Your task to perform on an android device: toggle location history Image 0: 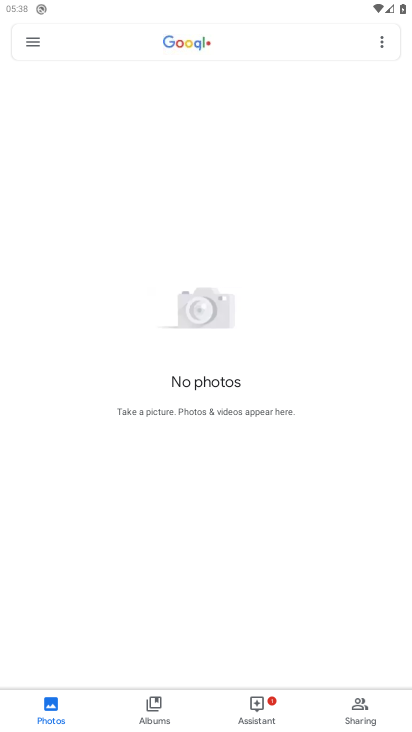
Step 0: press home button
Your task to perform on an android device: toggle location history Image 1: 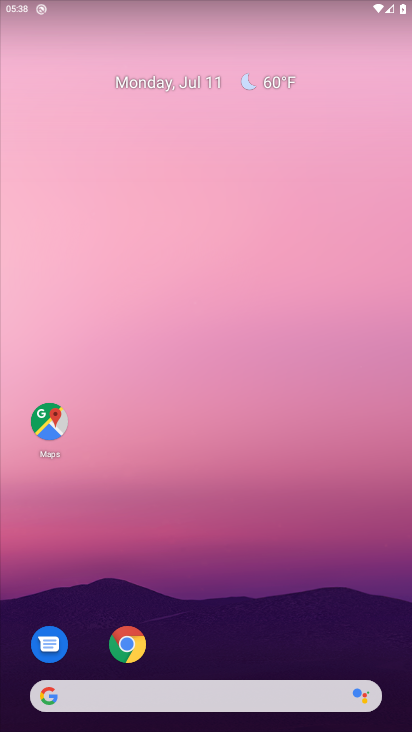
Step 1: drag from (228, 596) to (267, 314)
Your task to perform on an android device: toggle location history Image 2: 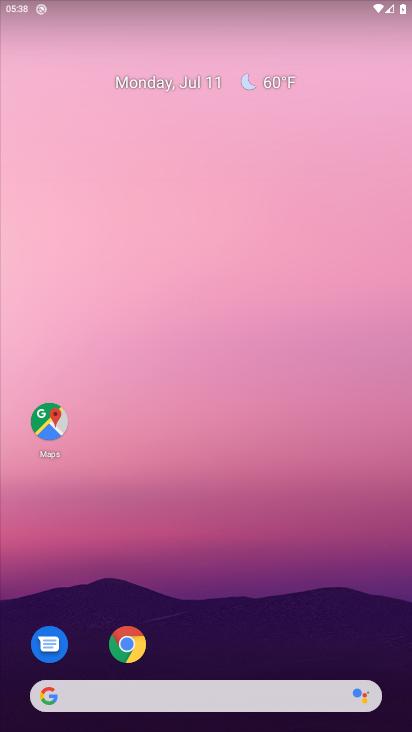
Step 2: drag from (249, 678) to (315, 218)
Your task to perform on an android device: toggle location history Image 3: 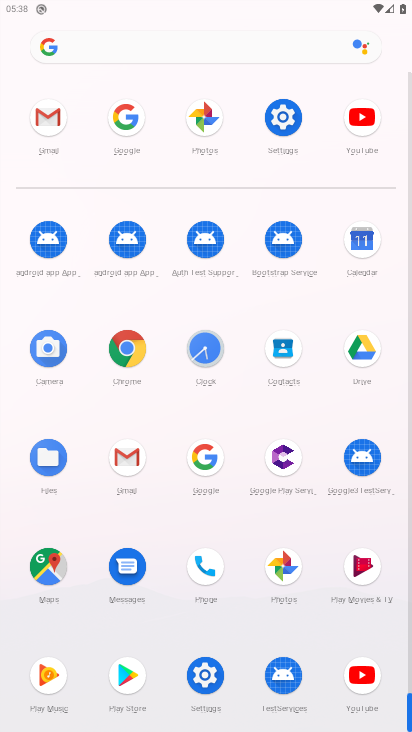
Step 3: click (281, 118)
Your task to perform on an android device: toggle location history Image 4: 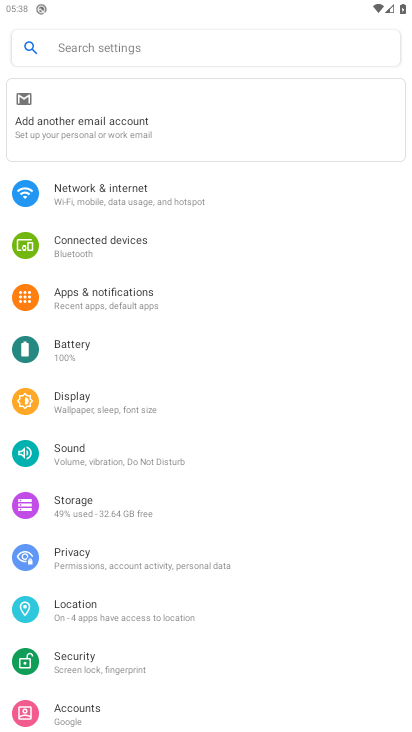
Step 4: click (78, 618)
Your task to perform on an android device: toggle location history Image 5: 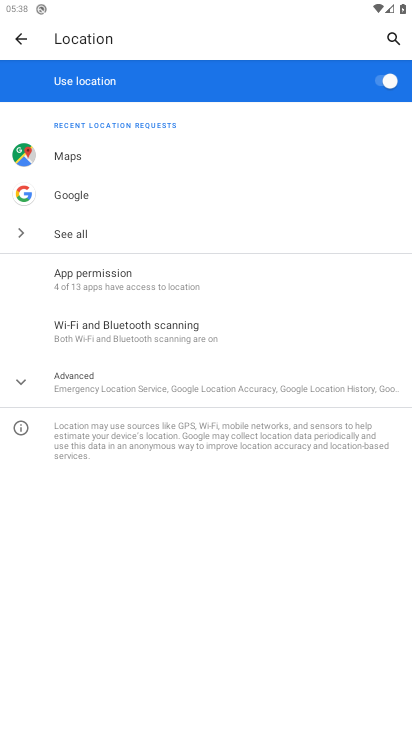
Step 5: click (80, 391)
Your task to perform on an android device: toggle location history Image 6: 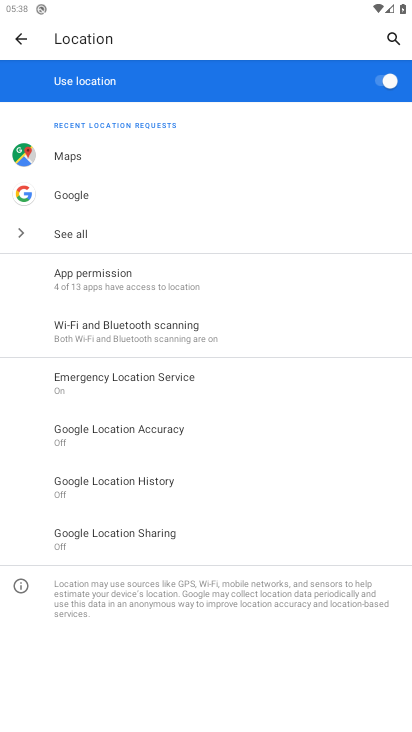
Step 6: click (106, 484)
Your task to perform on an android device: toggle location history Image 7: 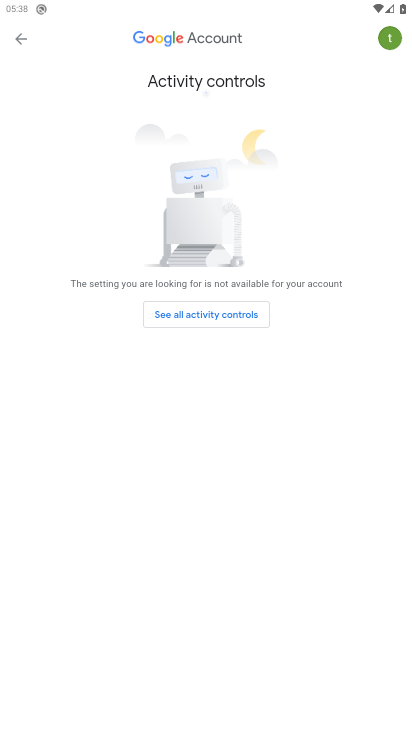
Step 7: click (207, 317)
Your task to perform on an android device: toggle location history Image 8: 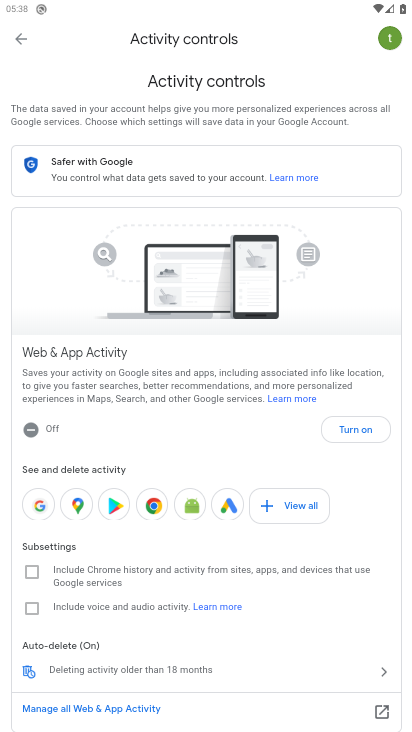
Step 8: click (365, 429)
Your task to perform on an android device: toggle location history Image 9: 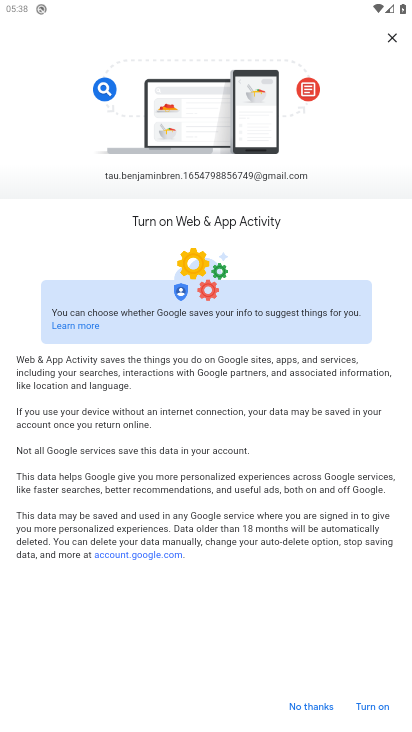
Step 9: click (374, 707)
Your task to perform on an android device: toggle location history Image 10: 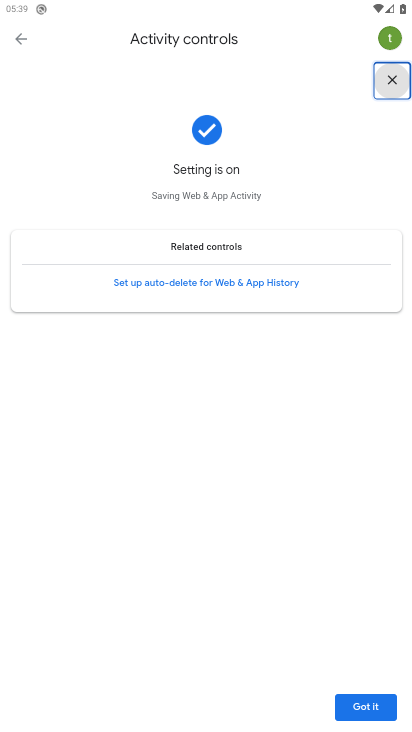
Step 10: click (369, 714)
Your task to perform on an android device: toggle location history Image 11: 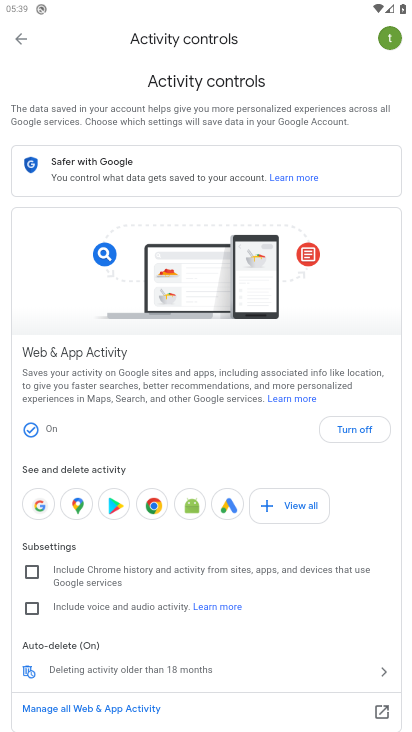
Step 11: task complete